Your task to perform on an android device: turn notification dots off Image 0: 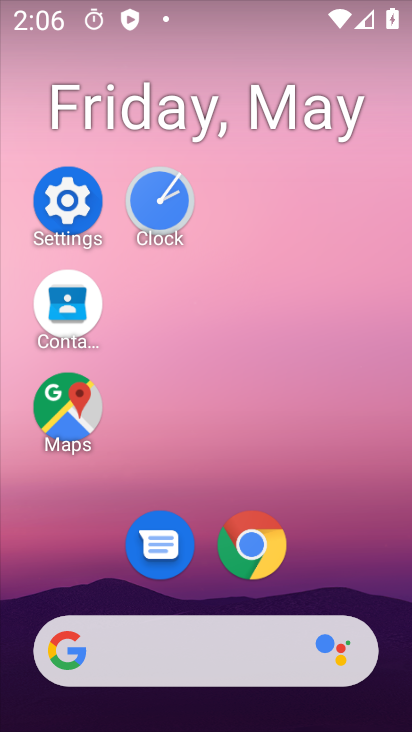
Step 0: click (79, 188)
Your task to perform on an android device: turn notification dots off Image 1: 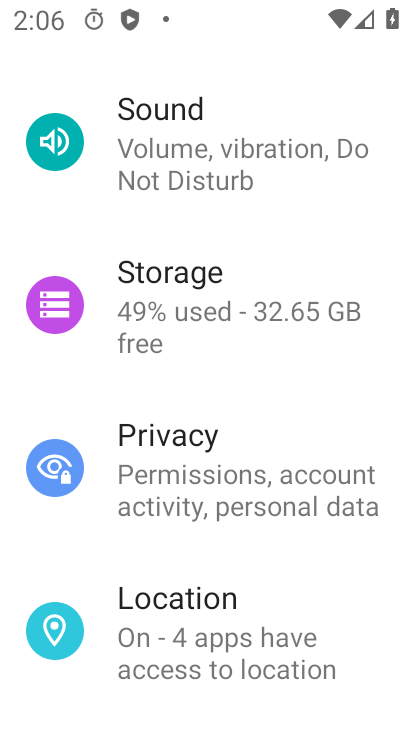
Step 1: drag from (267, 198) to (246, 627)
Your task to perform on an android device: turn notification dots off Image 2: 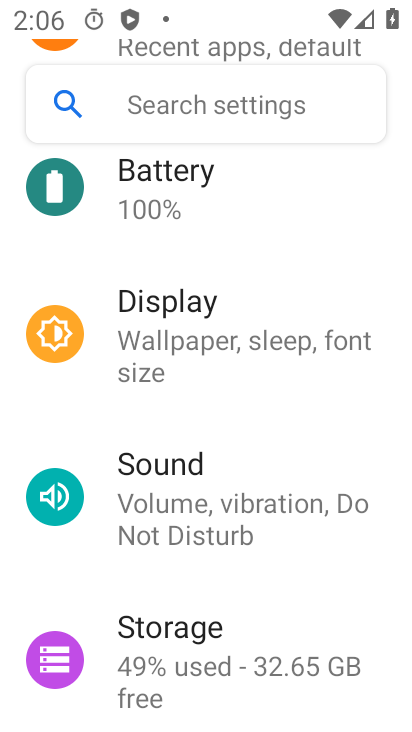
Step 2: drag from (286, 225) to (275, 669)
Your task to perform on an android device: turn notification dots off Image 3: 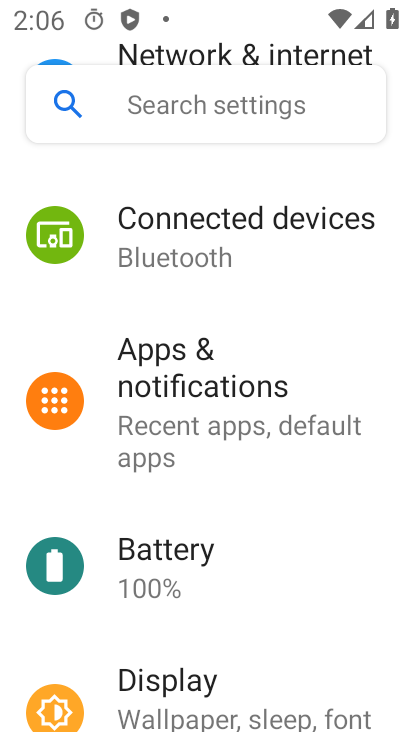
Step 3: drag from (323, 158) to (310, 628)
Your task to perform on an android device: turn notification dots off Image 4: 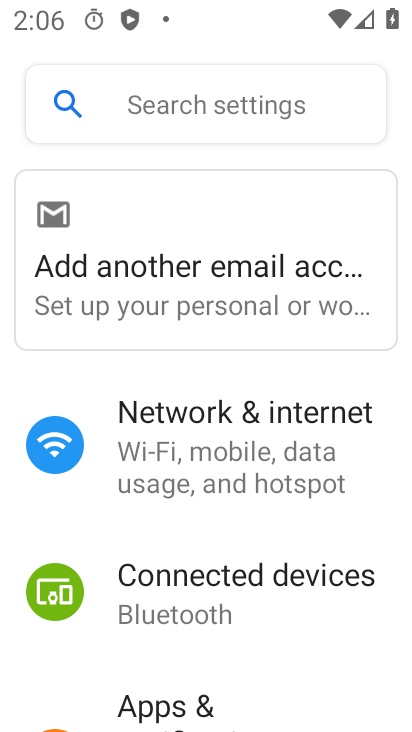
Step 4: drag from (340, 665) to (289, 216)
Your task to perform on an android device: turn notification dots off Image 5: 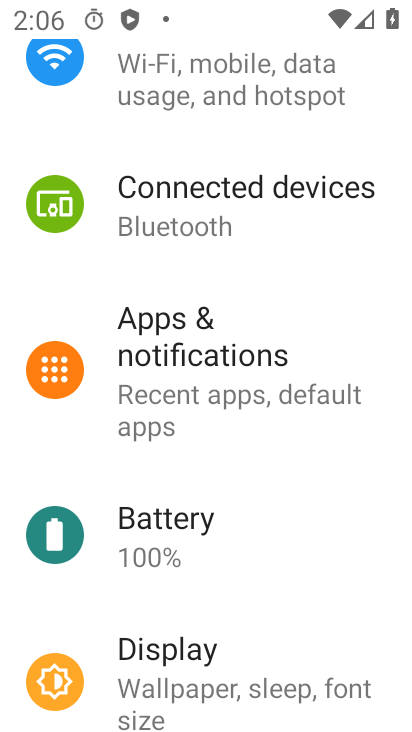
Step 5: drag from (312, 231) to (332, 559)
Your task to perform on an android device: turn notification dots off Image 6: 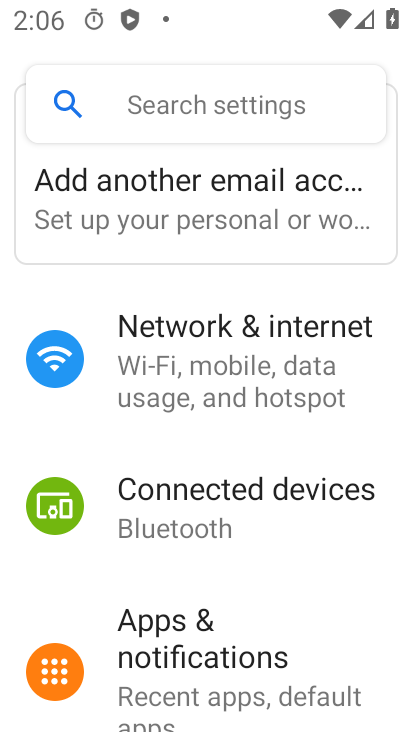
Step 6: drag from (345, 234) to (321, 439)
Your task to perform on an android device: turn notification dots off Image 7: 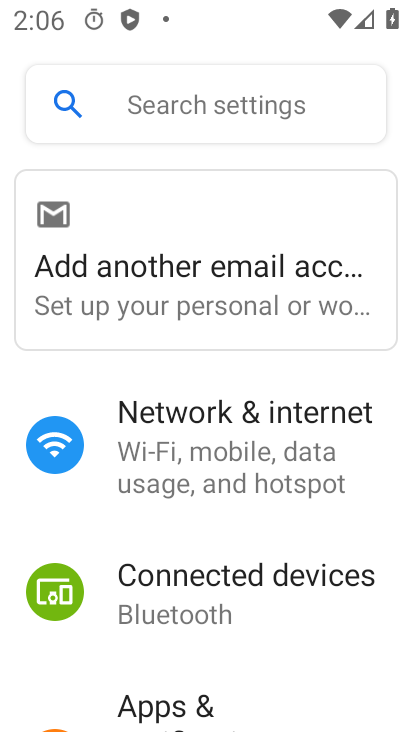
Step 7: drag from (330, 633) to (339, 190)
Your task to perform on an android device: turn notification dots off Image 8: 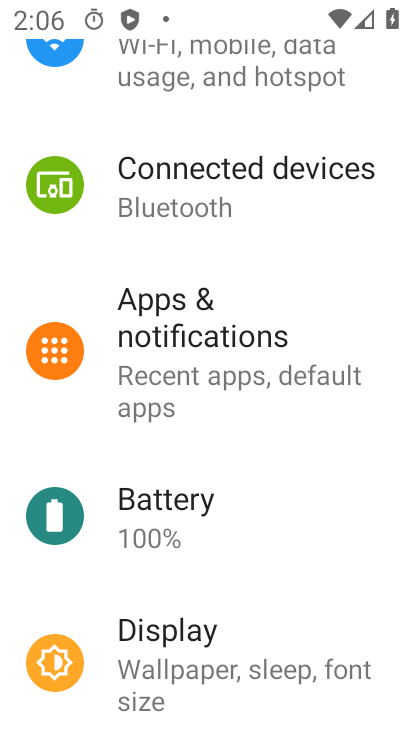
Step 8: drag from (311, 547) to (344, 175)
Your task to perform on an android device: turn notification dots off Image 9: 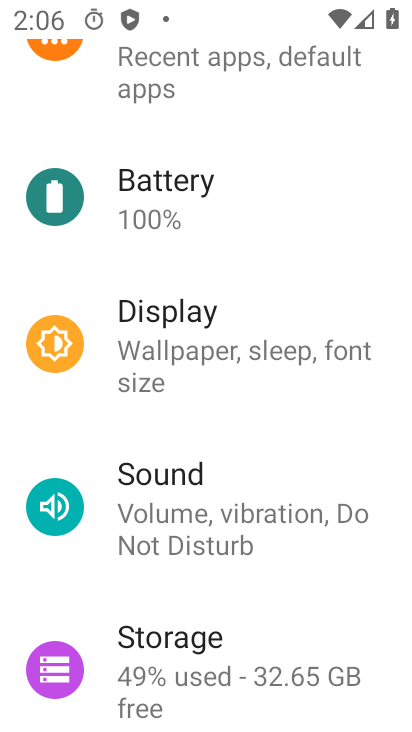
Step 9: click (290, 74)
Your task to perform on an android device: turn notification dots off Image 10: 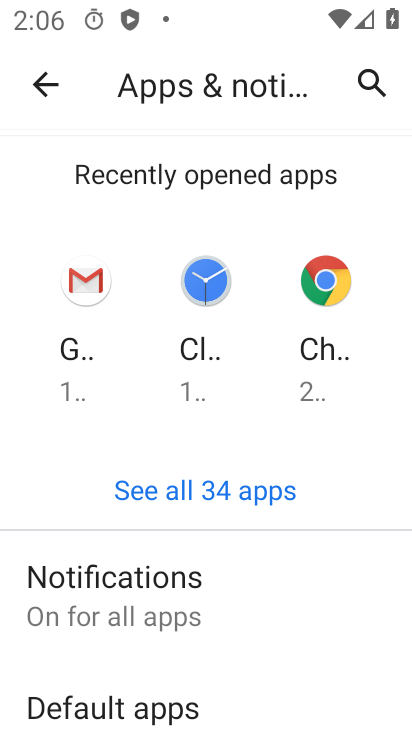
Step 10: drag from (322, 596) to (373, 100)
Your task to perform on an android device: turn notification dots off Image 11: 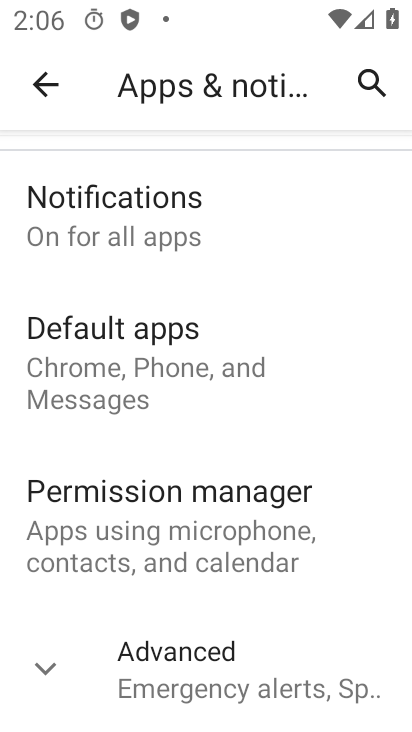
Step 11: click (184, 641)
Your task to perform on an android device: turn notification dots off Image 12: 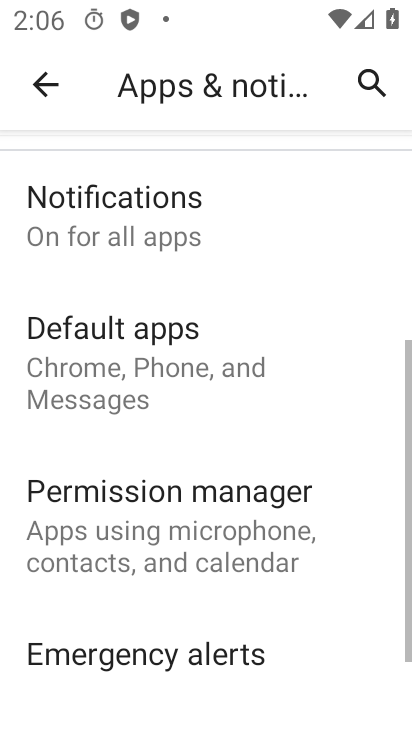
Step 12: drag from (363, 630) to (402, 210)
Your task to perform on an android device: turn notification dots off Image 13: 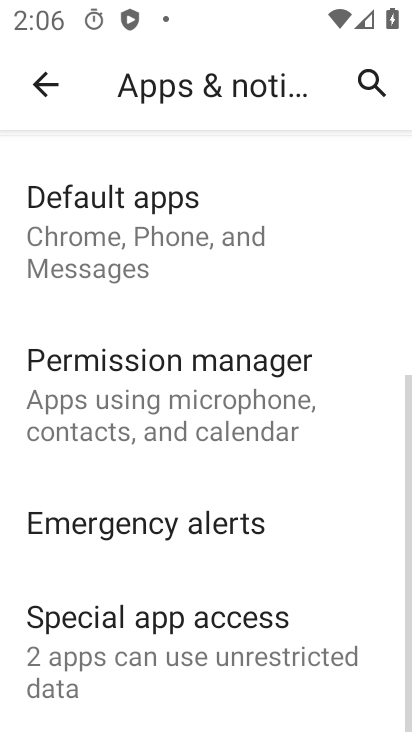
Step 13: drag from (304, 209) to (310, 713)
Your task to perform on an android device: turn notification dots off Image 14: 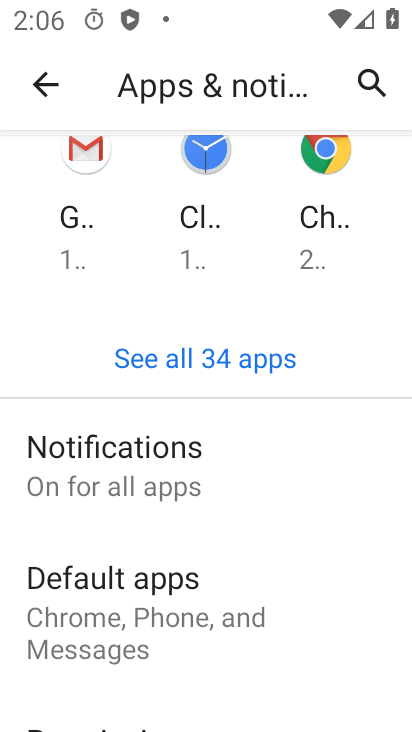
Step 14: click (215, 470)
Your task to perform on an android device: turn notification dots off Image 15: 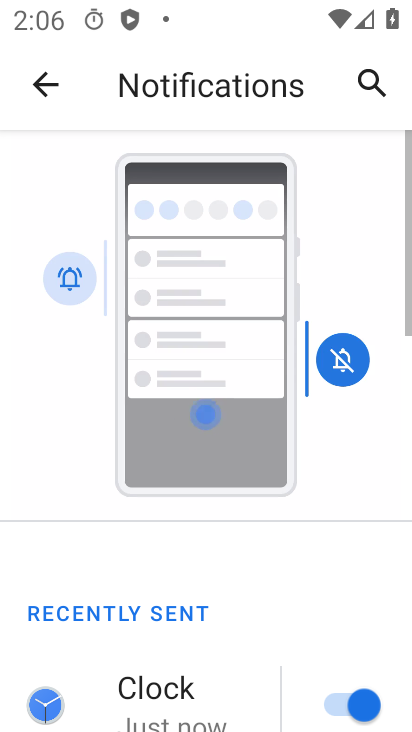
Step 15: drag from (333, 629) to (358, 217)
Your task to perform on an android device: turn notification dots off Image 16: 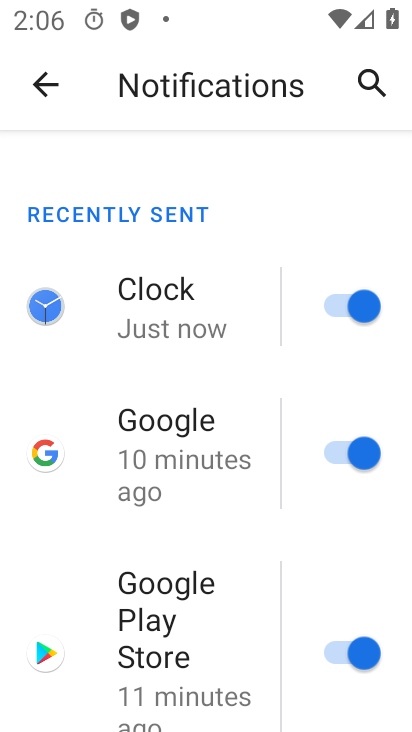
Step 16: drag from (234, 685) to (272, 154)
Your task to perform on an android device: turn notification dots off Image 17: 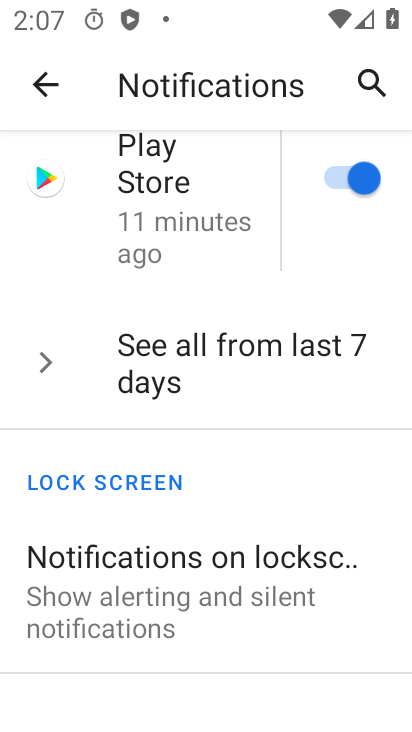
Step 17: drag from (215, 702) to (263, 327)
Your task to perform on an android device: turn notification dots off Image 18: 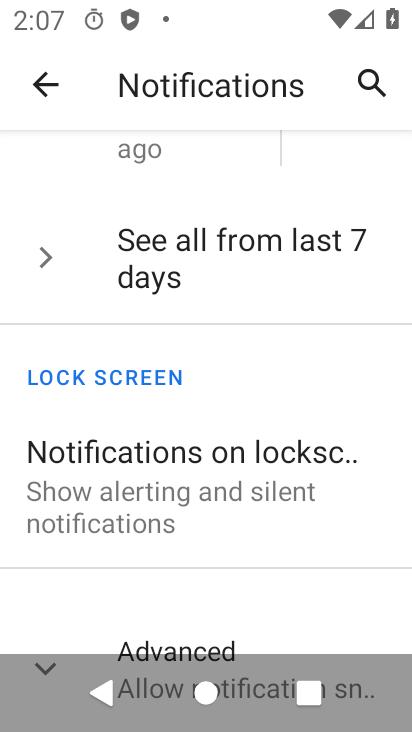
Step 18: click (208, 640)
Your task to perform on an android device: turn notification dots off Image 19: 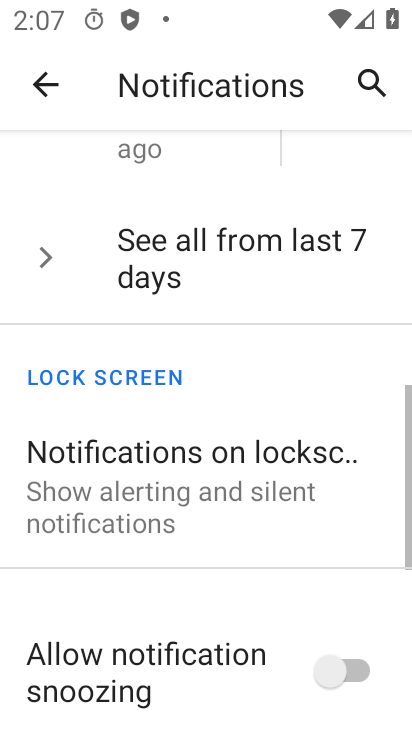
Step 19: drag from (225, 616) to (294, 247)
Your task to perform on an android device: turn notification dots off Image 20: 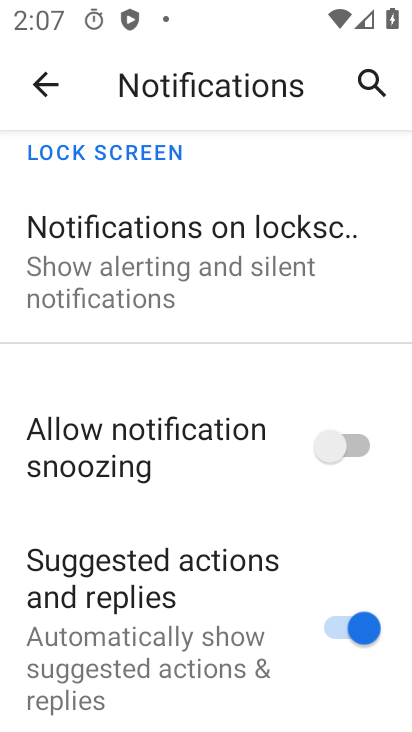
Step 20: drag from (273, 652) to (271, 261)
Your task to perform on an android device: turn notification dots off Image 21: 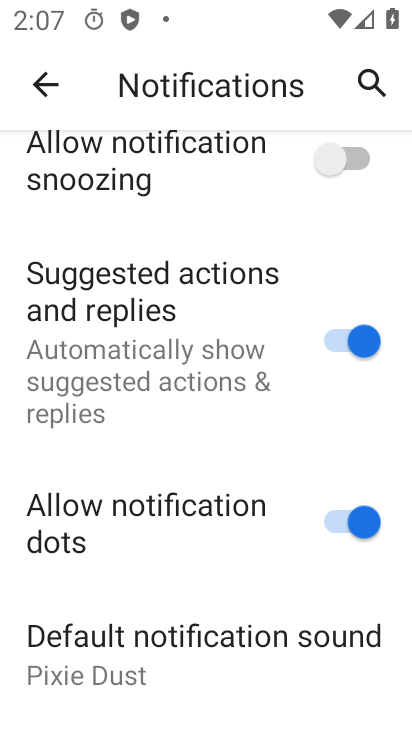
Step 21: click (357, 528)
Your task to perform on an android device: turn notification dots off Image 22: 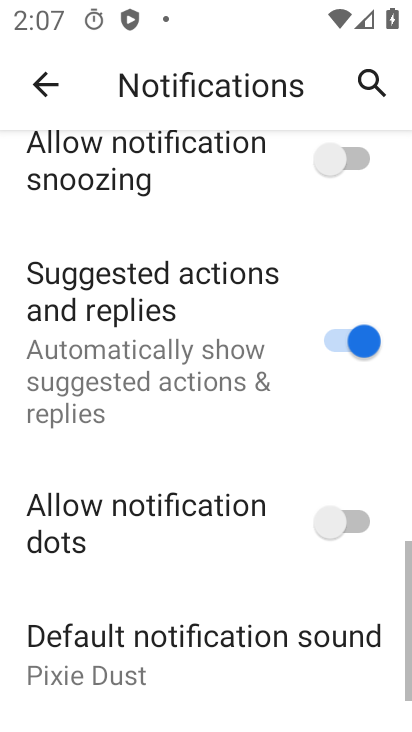
Step 22: task complete